Your task to perform on an android device: turn off sleep mode Image 0: 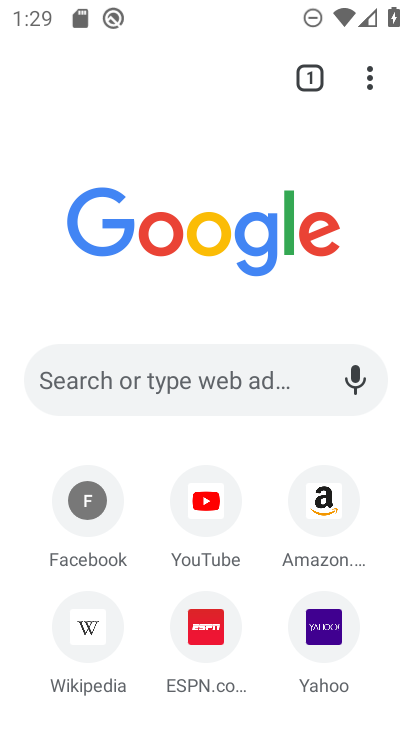
Step 0: press back button
Your task to perform on an android device: turn off sleep mode Image 1: 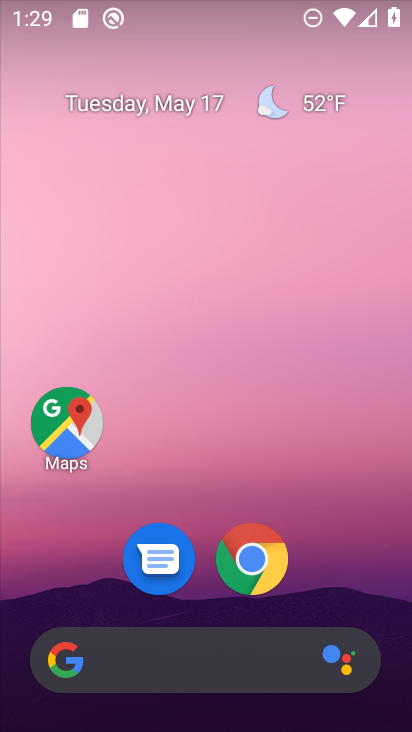
Step 1: drag from (328, 559) to (270, 76)
Your task to perform on an android device: turn off sleep mode Image 2: 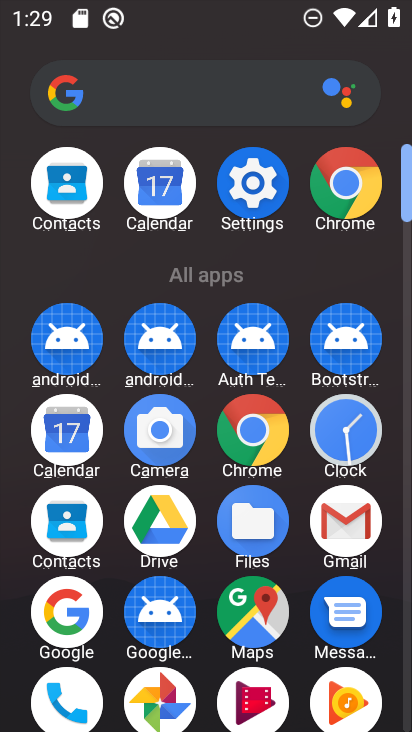
Step 2: click (249, 184)
Your task to perform on an android device: turn off sleep mode Image 3: 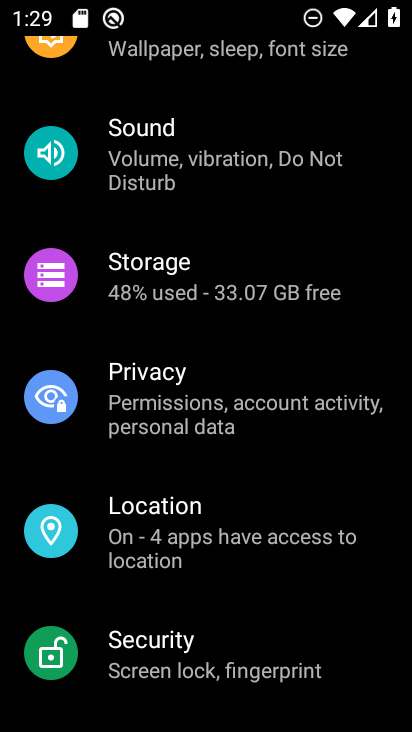
Step 3: drag from (205, 354) to (224, 272)
Your task to perform on an android device: turn off sleep mode Image 4: 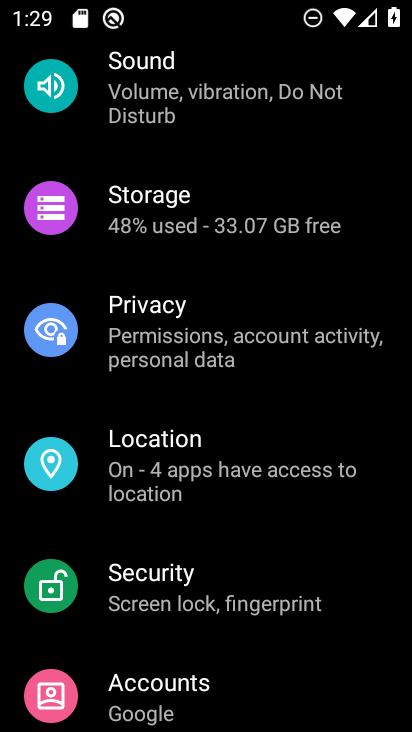
Step 4: drag from (225, 380) to (257, 319)
Your task to perform on an android device: turn off sleep mode Image 5: 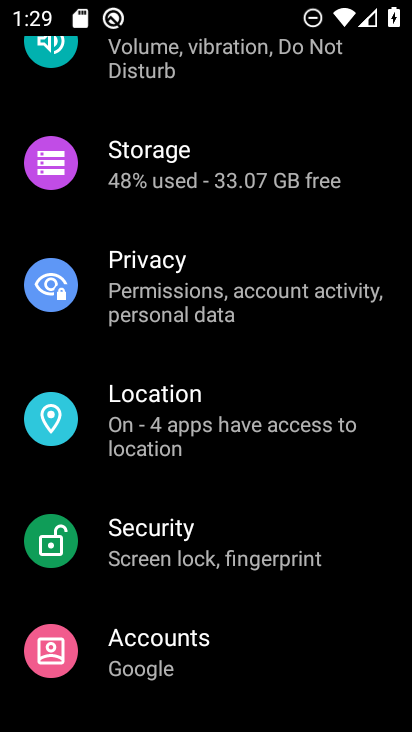
Step 5: drag from (276, 142) to (285, 267)
Your task to perform on an android device: turn off sleep mode Image 6: 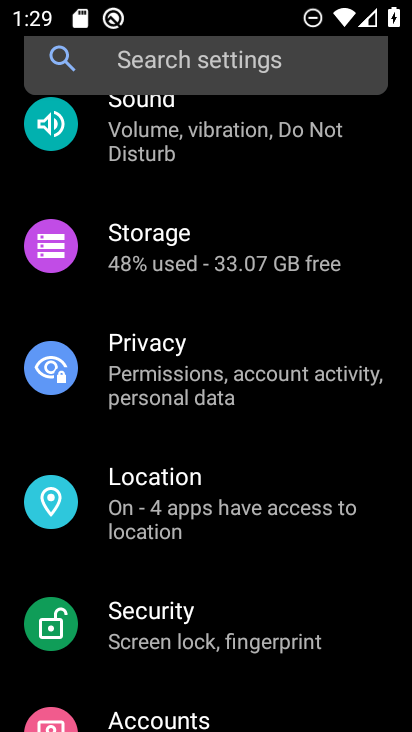
Step 6: drag from (265, 208) to (282, 434)
Your task to perform on an android device: turn off sleep mode Image 7: 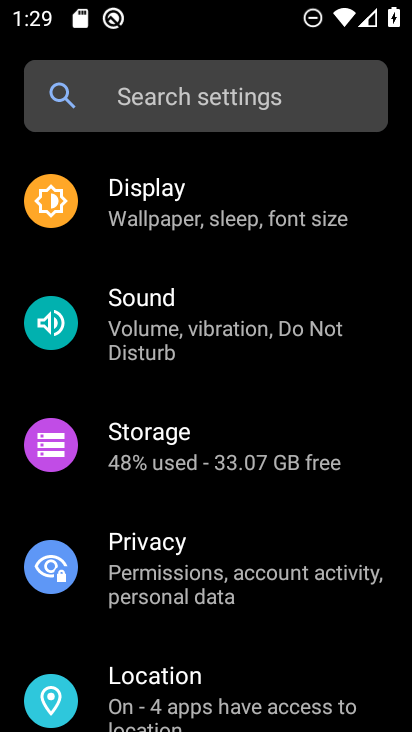
Step 7: click (249, 231)
Your task to perform on an android device: turn off sleep mode Image 8: 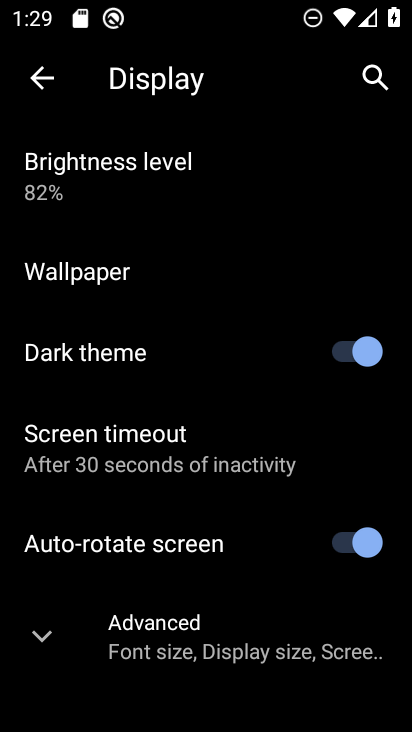
Step 8: click (137, 450)
Your task to perform on an android device: turn off sleep mode Image 9: 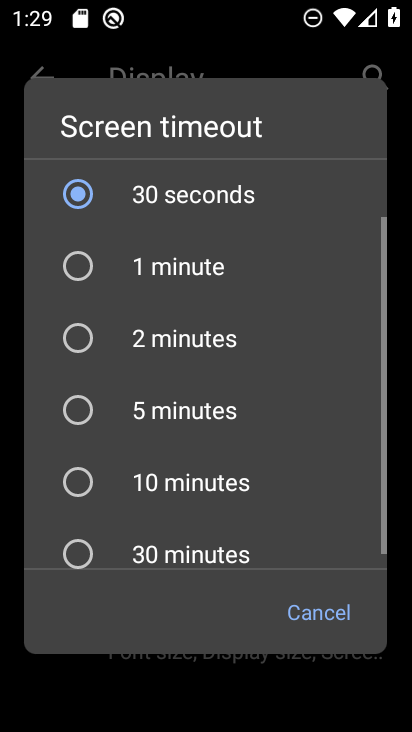
Step 9: drag from (125, 266) to (174, 383)
Your task to perform on an android device: turn off sleep mode Image 10: 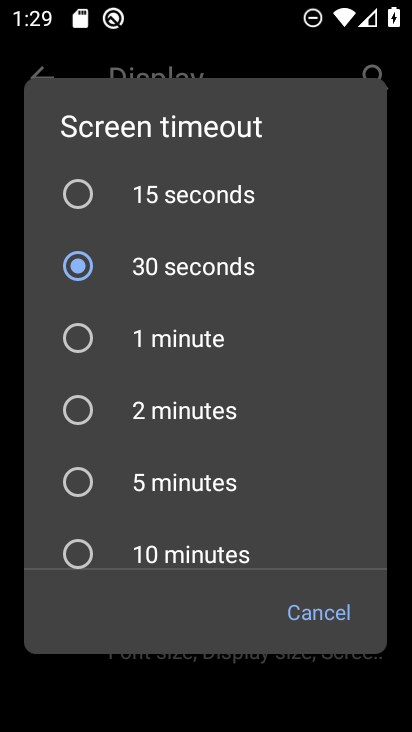
Step 10: drag from (164, 247) to (211, 444)
Your task to perform on an android device: turn off sleep mode Image 11: 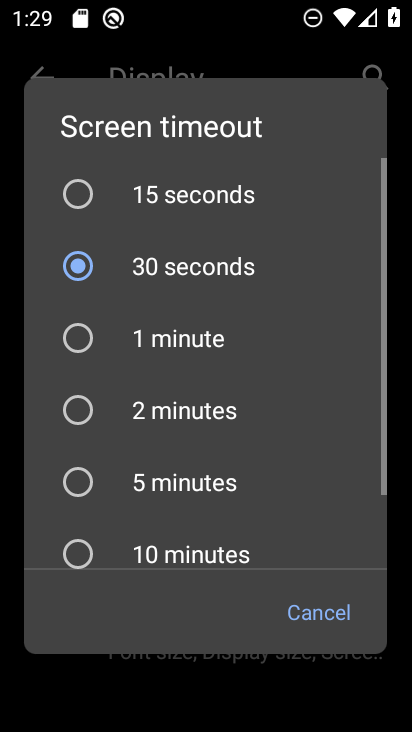
Step 11: drag from (216, 476) to (215, 399)
Your task to perform on an android device: turn off sleep mode Image 12: 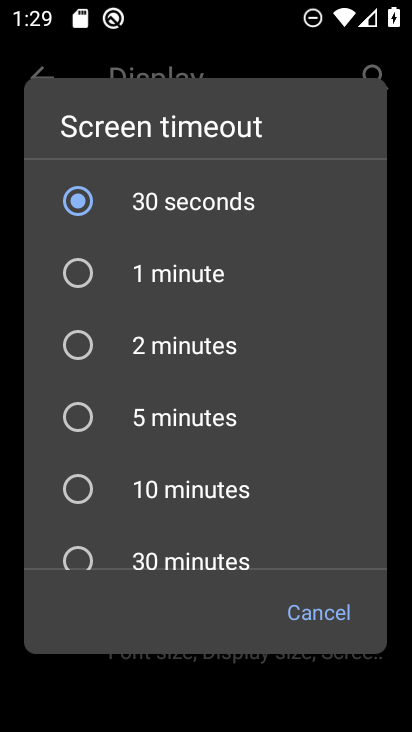
Step 12: drag from (208, 478) to (218, 369)
Your task to perform on an android device: turn off sleep mode Image 13: 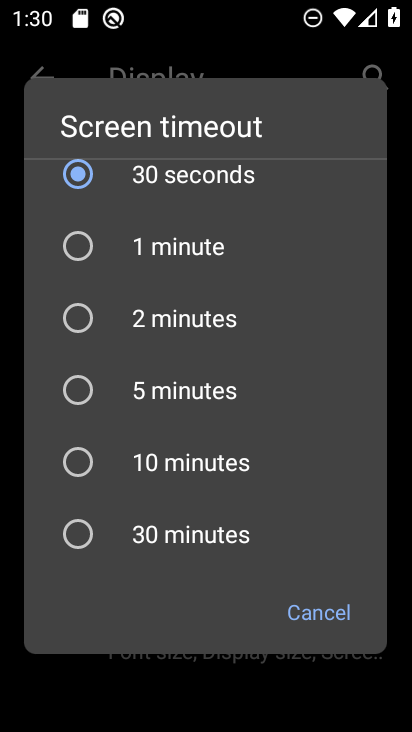
Step 13: click (303, 615)
Your task to perform on an android device: turn off sleep mode Image 14: 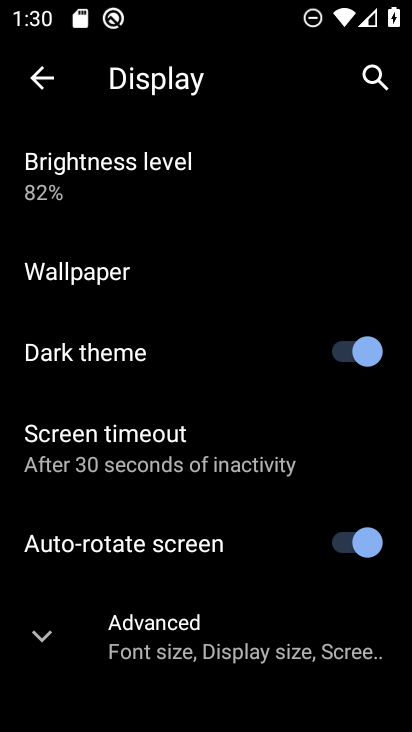
Step 14: drag from (189, 577) to (207, 471)
Your task to perform on an android device: turn off sleep mode Image 15: 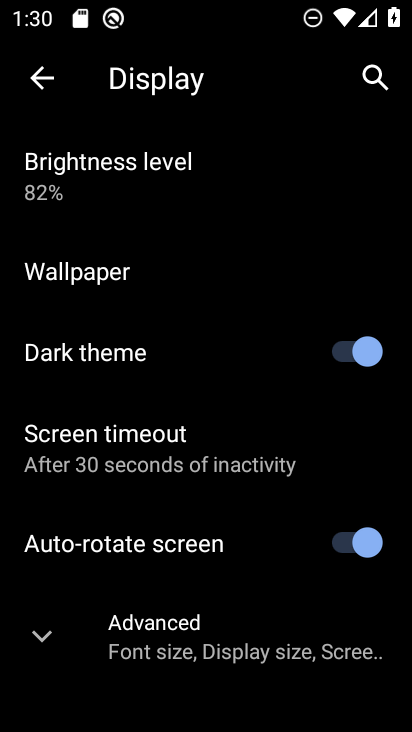
Step 15: click (192, 653)
Your task to perform on an android device: turn off sleep mode Image 16: 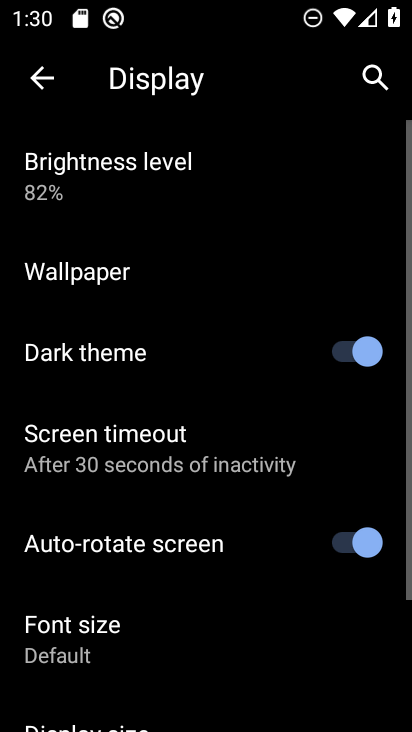
Step 16: task complete